Your task to perform on an android device: turn on improve location accuracy Image 0: 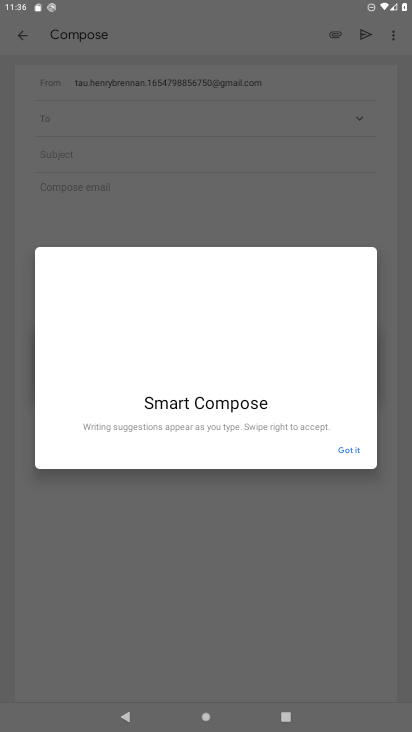
Step 0: press home button
Your task to perform on an android device: turn on improve location accuracy Image 1: 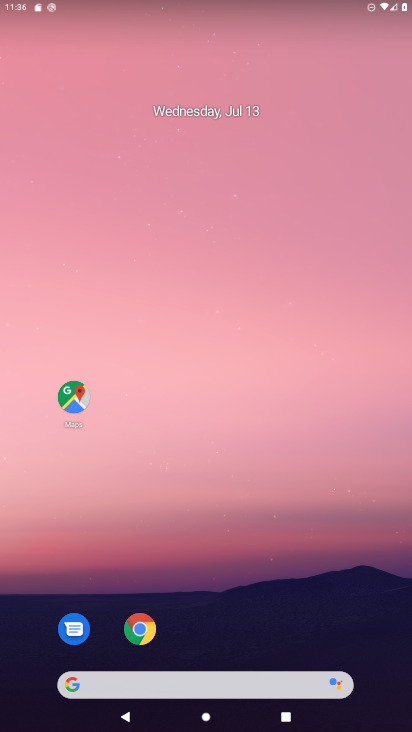
Step 1: drag from (372, 572) to (337, 124)
Your task to perform on an android device: turn on improve location accuracy Image 2: 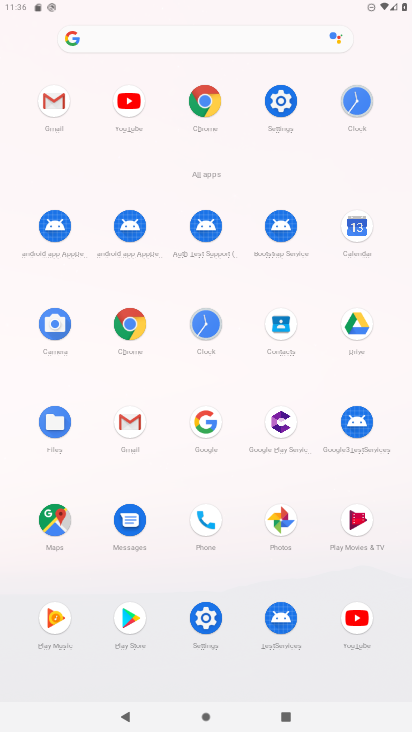
Step 2: click (287, 100)
Your task to perform on an android device: turn on improve location accuracy Image 3: 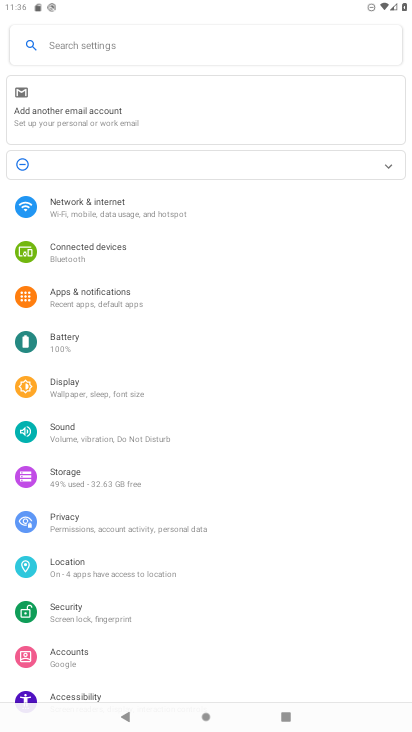
Step 3: click (76, 557)
Your task to perform on an android device: turn on improve location accuracy Image 4: 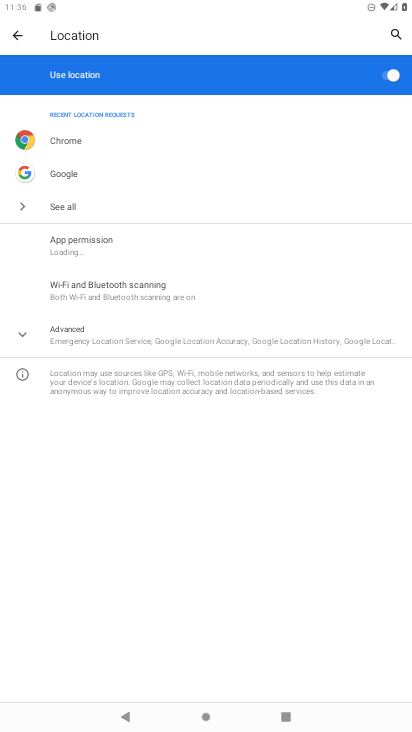
Step 4: click (27, 334)
Your task to perform on an android device: turn on improve location accuracy Image 5: 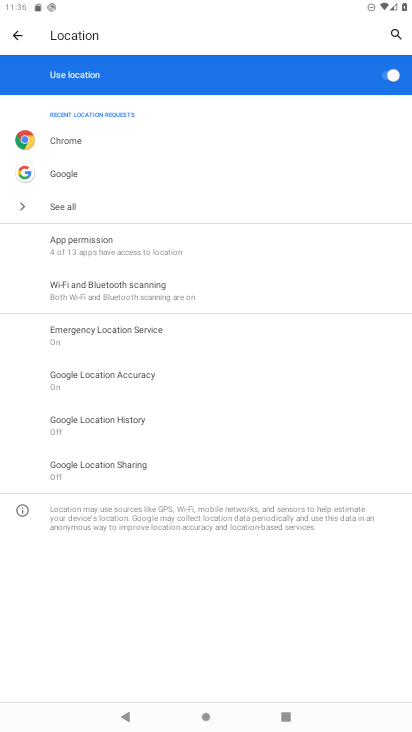
Step 5: task complete